Your task to perform on an android device: When is my next appointment? Image 0: 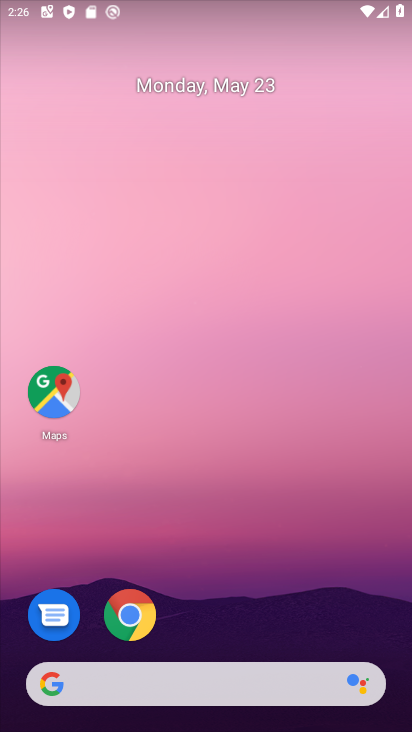
Step 0: drag from (259, 645) to (332, 9)
Your task to perform on an android device: When is my next appointment? Image 1: 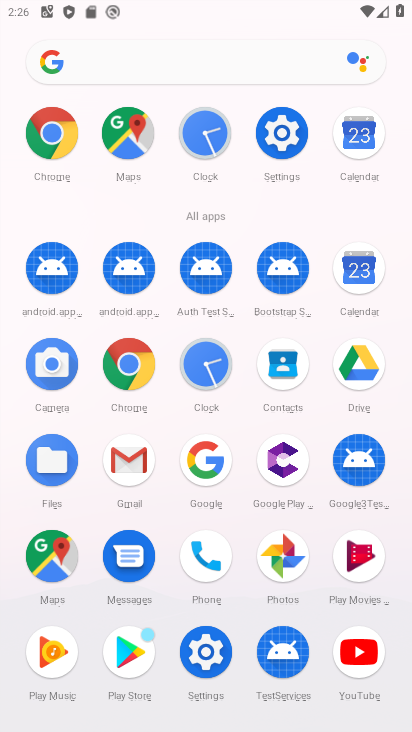
Step 1: click (355, 146)
Your task to perform on an android device: When is my next appointment? Image 2: 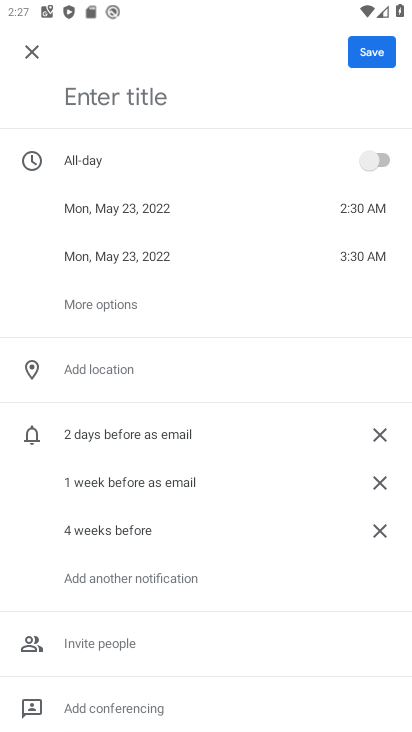
Step 2: click (30, 58)
Your task to perform on an android device: When is my next appointment? Image 3: 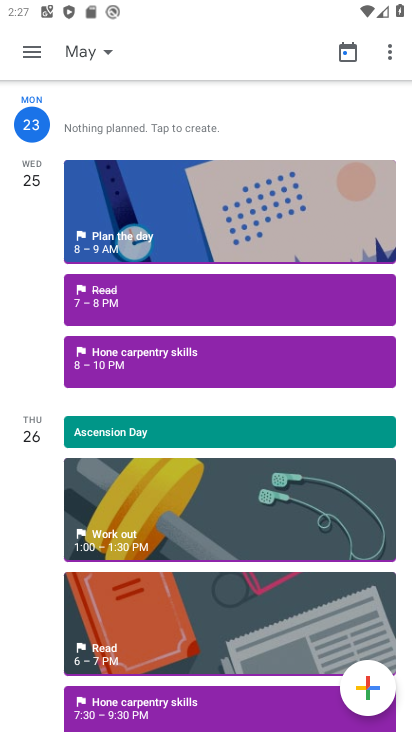
Step 3: click (127, 307)
Your task to perform on an android device: When is my next appointment? Image 4: 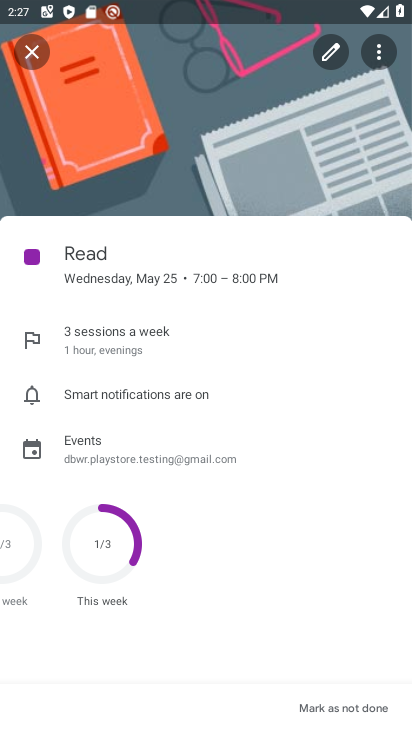
Step 4: task complete